Your task to perform on an android device: Set the phone to "Do not disturb". Image 0: 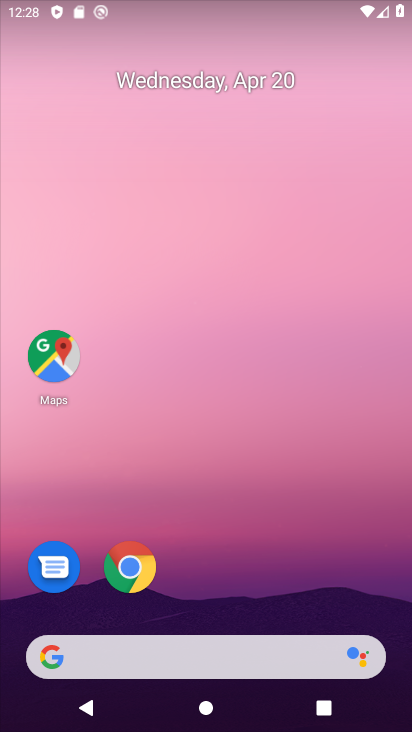
Step 0: drag from (187, 16) to (166, 401)
Your task to perform on an android device: Set the phone to "Do not disturb". Image 1: 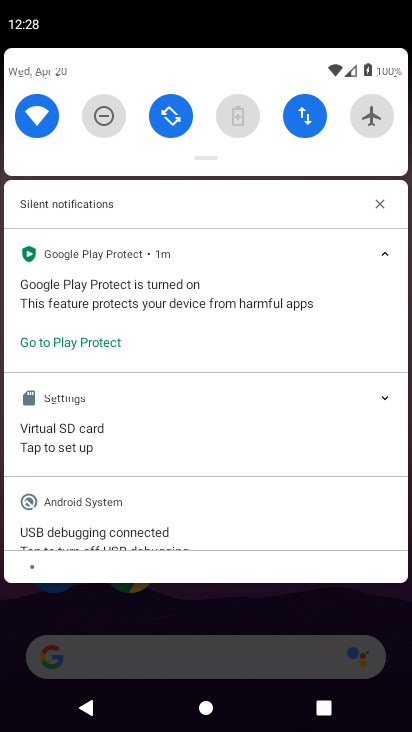
Step 1: drag from (233, 155) to (242, 537)
Your task to perform on an android device: Set the phone to "Do not disturb". Image 2: 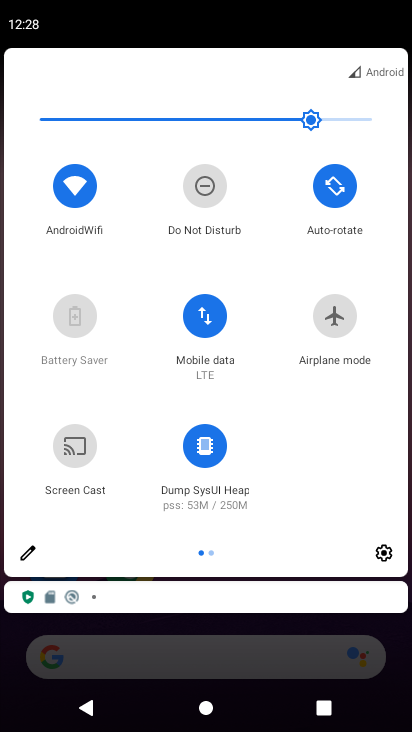
Step 2: click (203, 185)
Your task to perform on an android device: Set the phone to "Do not disturb". Image 3: 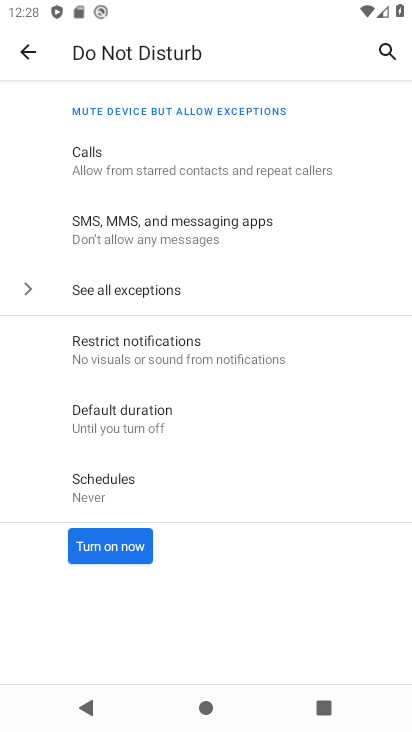
Step 3: click (122, 544)
Your task to perform on an android device: Set the phone to "Do not disturb". Image 4: 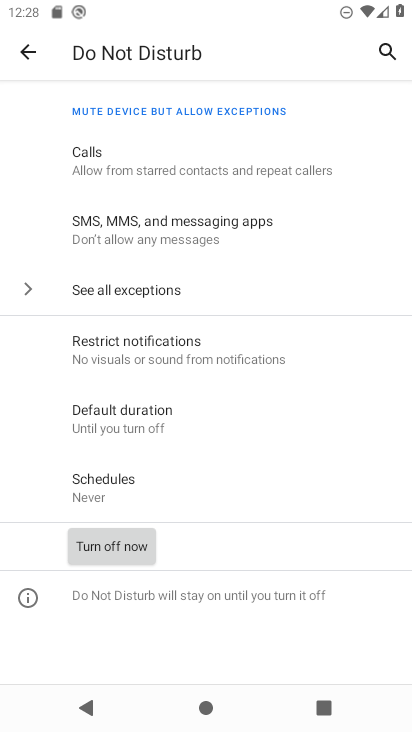
Step 4: click (21, 53)
Your task to perform on an android device: Set the phone to "Do not disturb". Image 5: 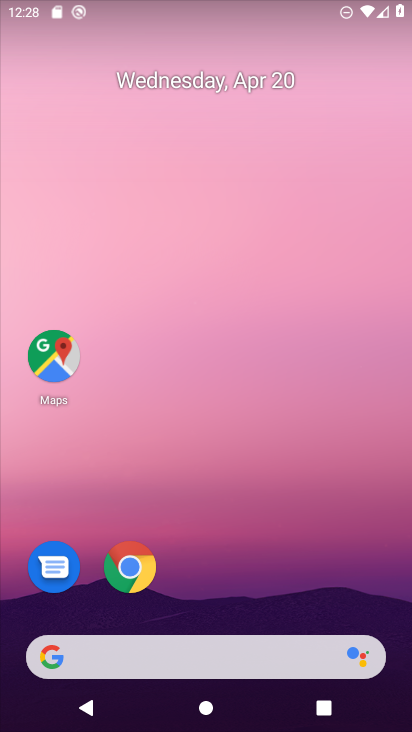
Step 5: task complete